Your task to perform on an android device: remove spam from my inbox in the gmail app Image 0: 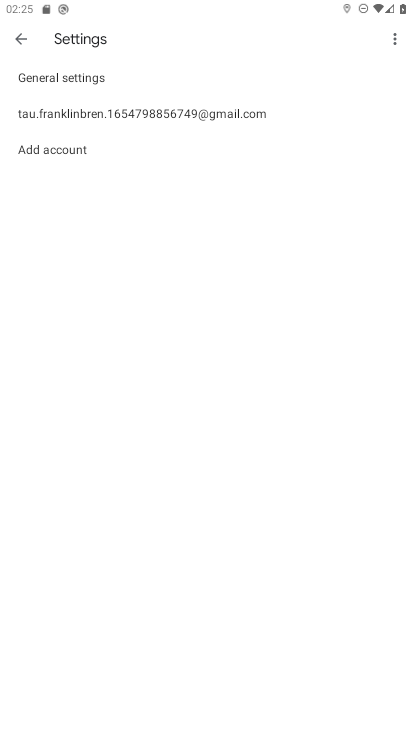
Step 0: click (34, 46)
Your task to perform on an android device: remove spam from my inbox in the gmail app Image 1: 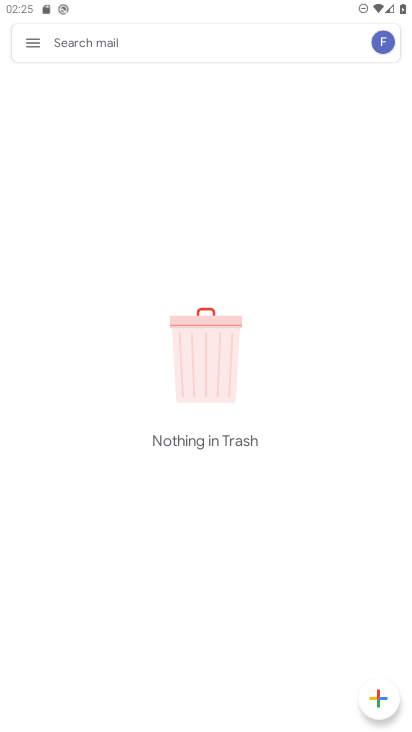
Step 1: click (34, 46)
Your task to perform on an android device: remove spam from my inbox in the gmail app Image 2: 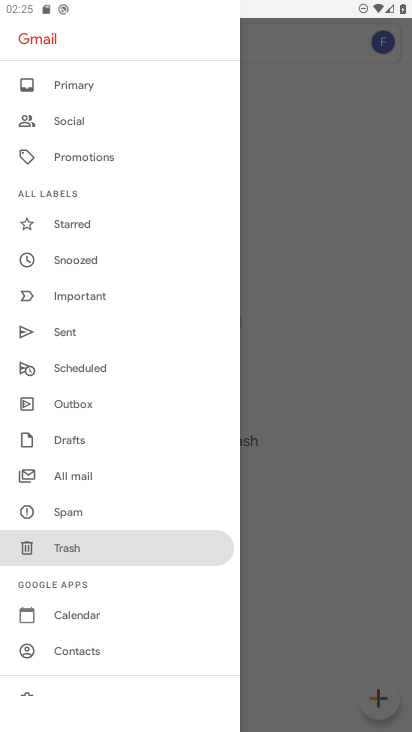
Step 2: click (75, 494)
Your task to perform on an android device: remove spam from my inbox in the gmail app Image 3: 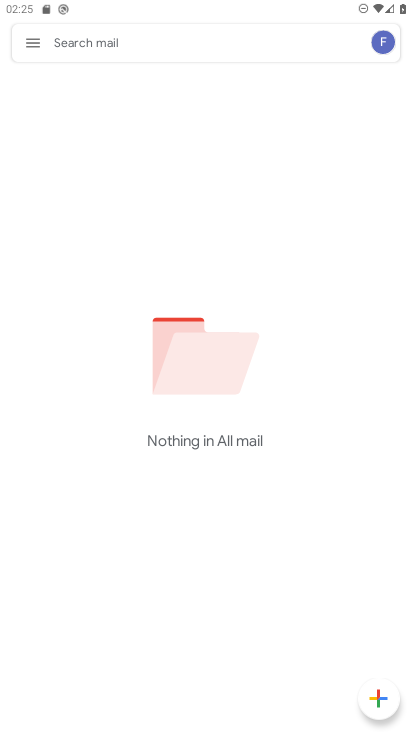
Step 3: task complete